Your task to perform on an android device: change the clock display to digital Image 0: 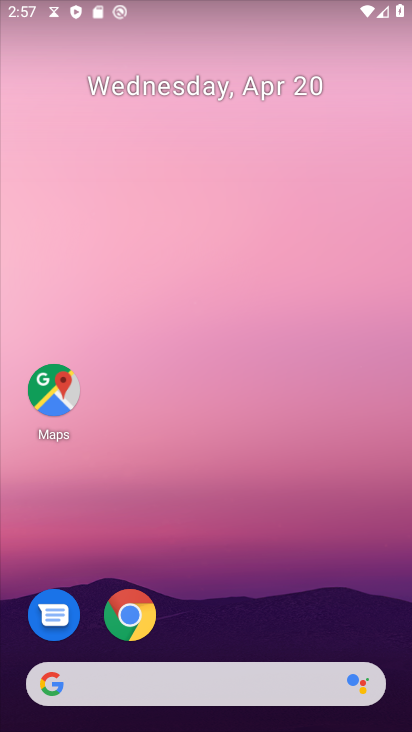
Step 0: click (245, 51)
Your task to perform on an android device: change the clock display to digital Image 1: 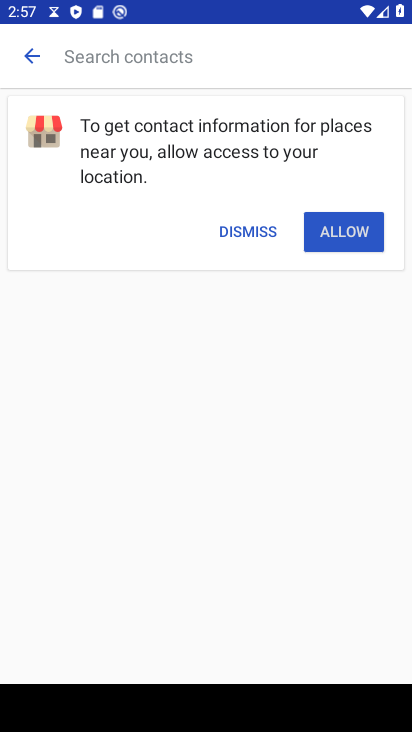
Step 1: click (237, 226)
Your task to perform on an android device: change the clock display to digital Image 2: 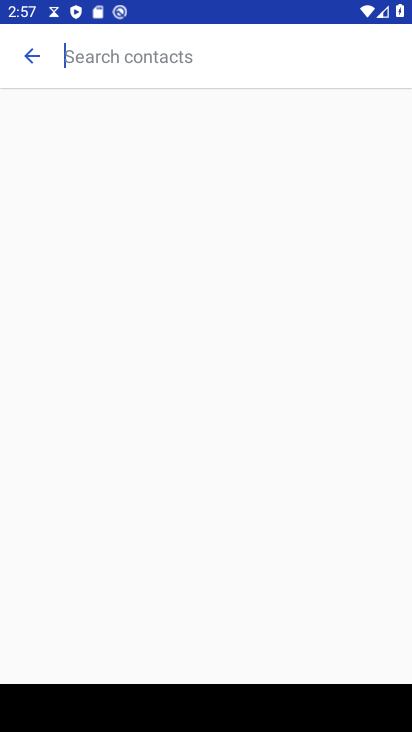
Step 2: click (34, 45)
Your task to perform on an android device: change the clock display to digital Image 3: 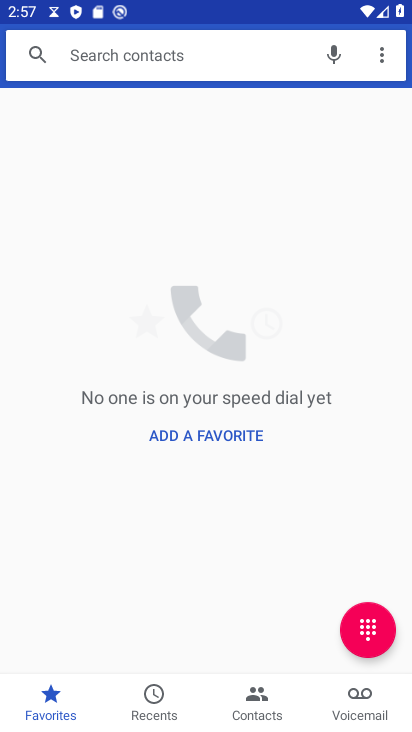
Step 3: press home button
Your task to perform on an android device: change the clock display to digital Image 4: 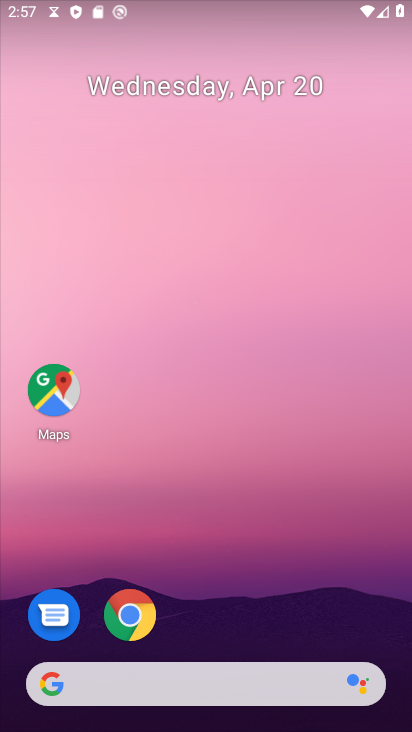
Step 4: drag from (196, 629) to (232, 148)
Your task to perform on an android device: change the clock display to digital Image 5: 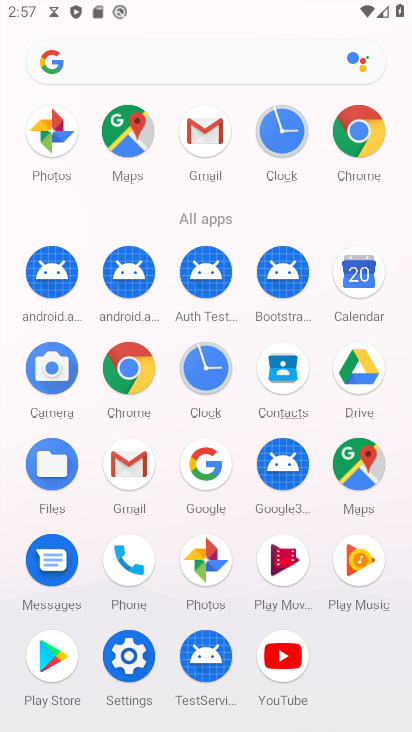
Step 5: click (199, 359)
Your task to perform on an android device: change the clock display to digital Image 6: 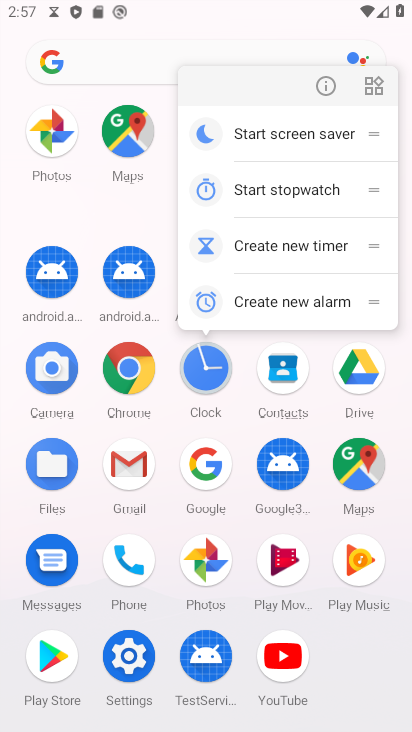
Step 6: click (327, 83)
Your task to perform on an android device: change the clock display to digital Image 7: 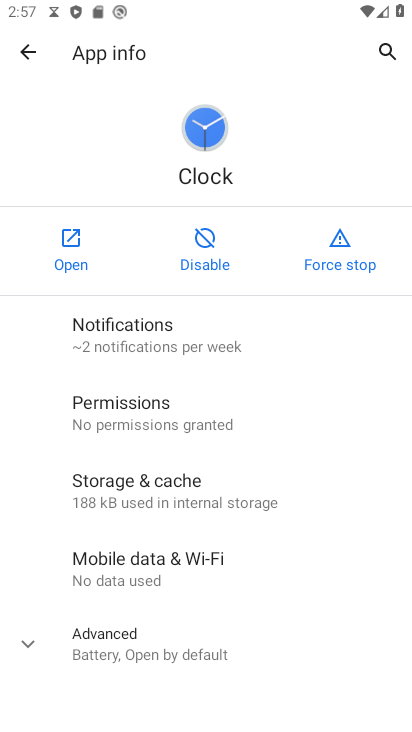
Step 7: click (78, 257)
Your task to perform on an android device: change the clock display to digital Image 8: 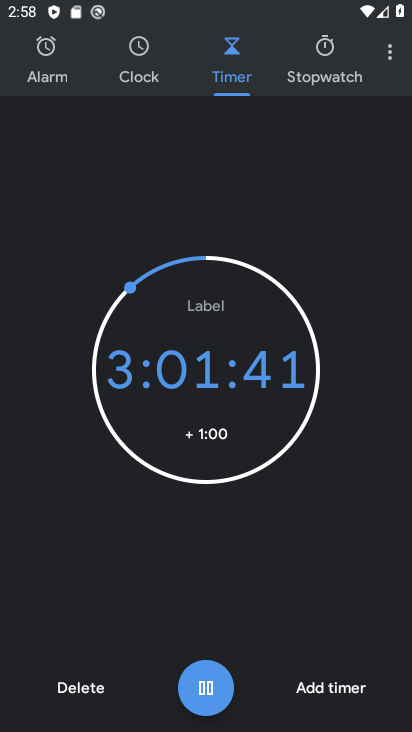
Step 8: drag from (387, 56) to (376, 98)
Your task to perform on an android device: change the clock display to digital Image 9: 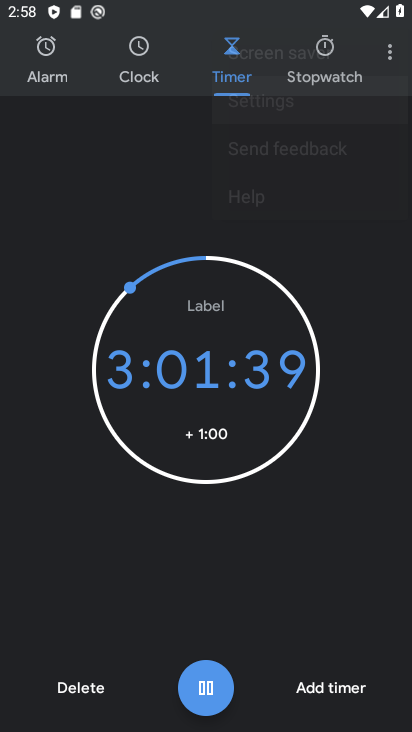
Step 9: click (333, 88)
Your task to perform on an android device: change the clock display to digital Image 10: 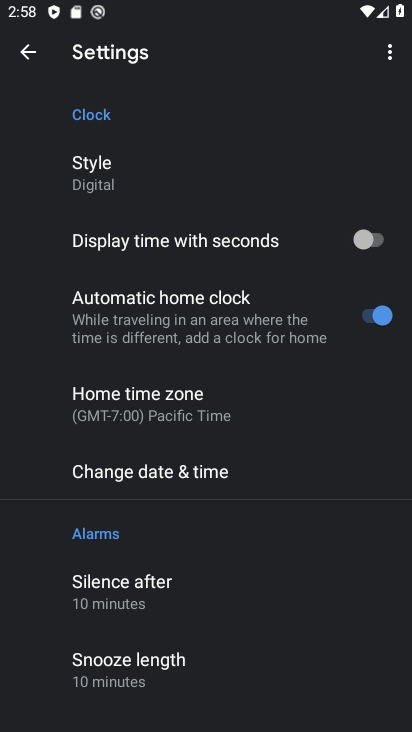
Step 10: click (119, 187)
Your task to perform on an android device: change the clock display to digital Image 11: 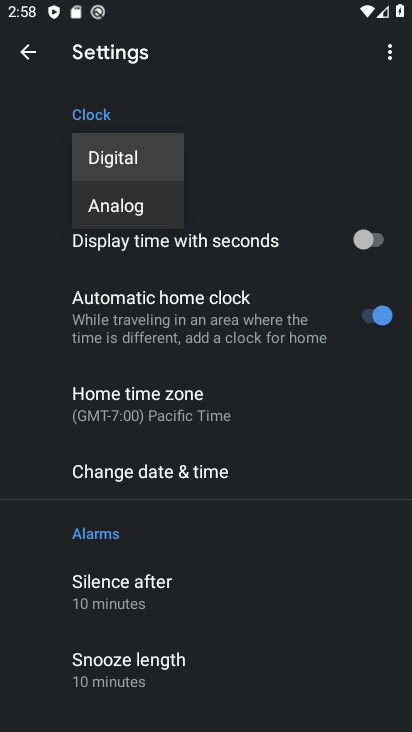
Step 11: click (131, 163)
Your task to perform on an android device: change the clock display to digital Image 12: 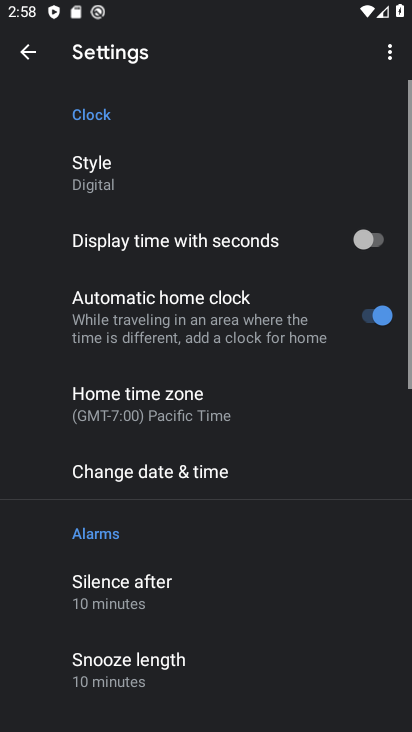
Step 12: task complete